Your task to perform on an android device: find snoozed emails in the gmail app Image 0: 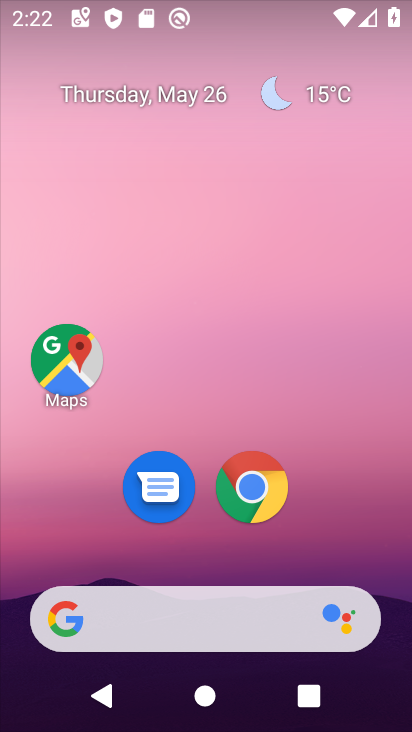
Step 0: drag from (203, 553) to (243, 233)
Your task to perform on an android device: find snoozed emails in the gmail app Image 1: 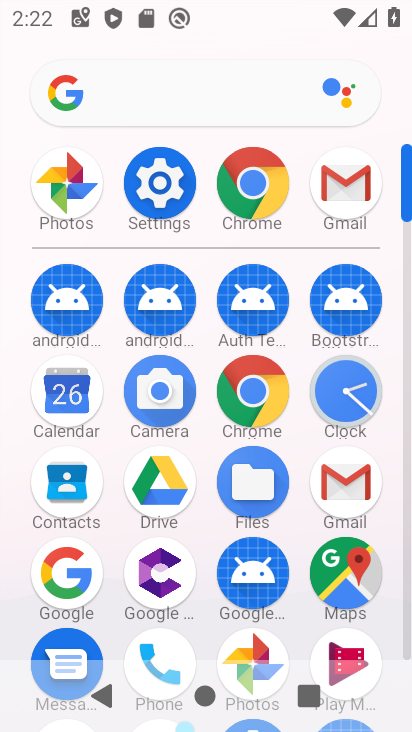
Step 1: click (351, 162)
Your task to perform on an android device: find snoozed emails in the gmail app Image 2: 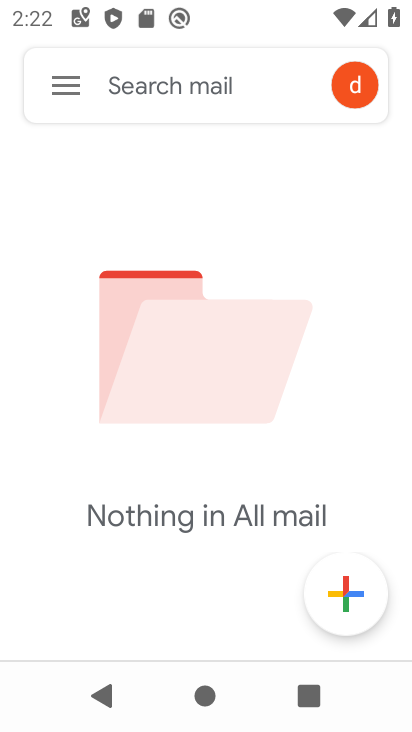
Step 2: click (68, 93)
Your task to perform on an android device: find snoozed emails in the gmail app Image 3: 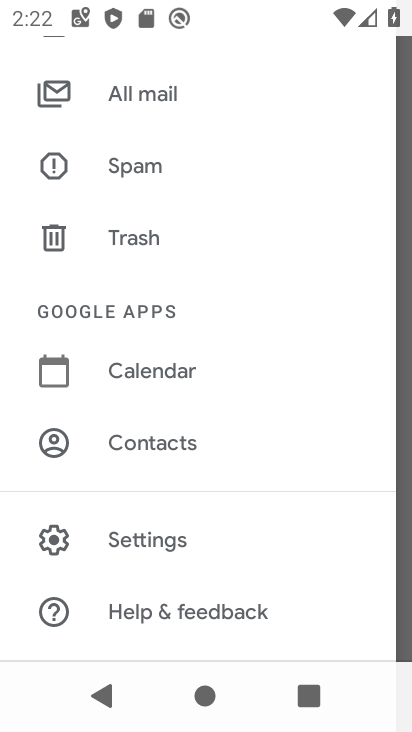
Step 3: drag from (178, 220) to (187, 434)
Your task to perform on an android device: find snoozed emails in the gmail app Image 4: 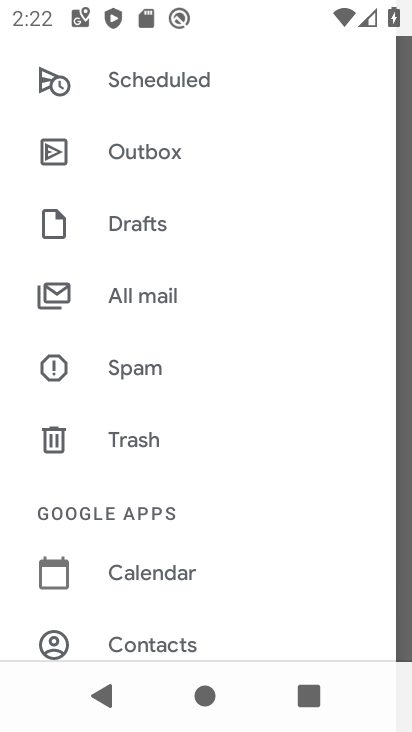
Step 4: drag from (179, 174) to (213, 428)
Your task to perform on an android device: find snoozed emails in the gmail app Image 5: 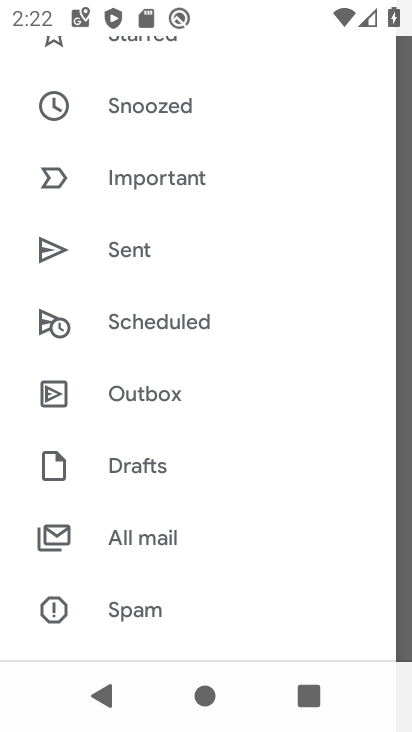
Step 5: click (151, 112)
Your task to perform on an android device: find snoozed emails in the gmail app Image 6: 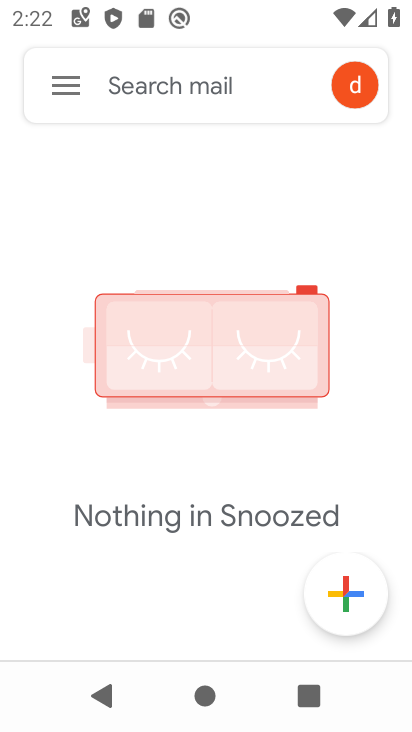
Step 6: task complete